Your task to perform on an android device: turn pop-ups on in chrome Image 0: 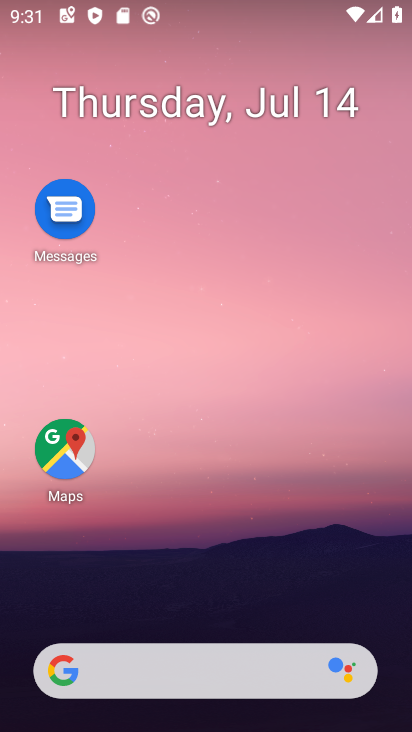
Step 0: drag from (198, 613) to (203, 70)
Your task to perform on an android device: turn pop-ups on in chrome Image 1: 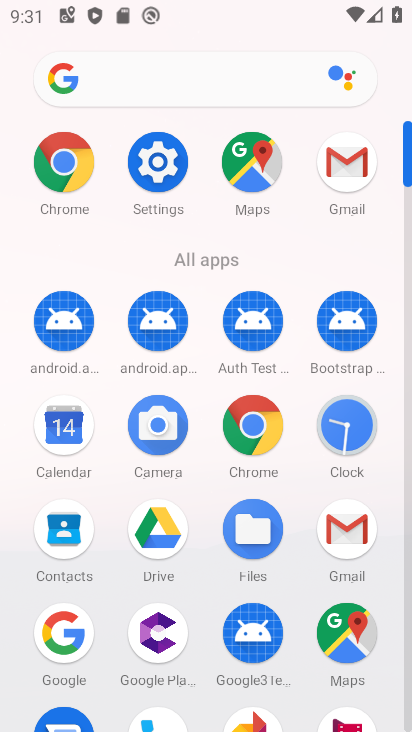
Step 1: click (64, 162)
Your task to perform on an android device: turn pop-ups on in chrome Image 2: 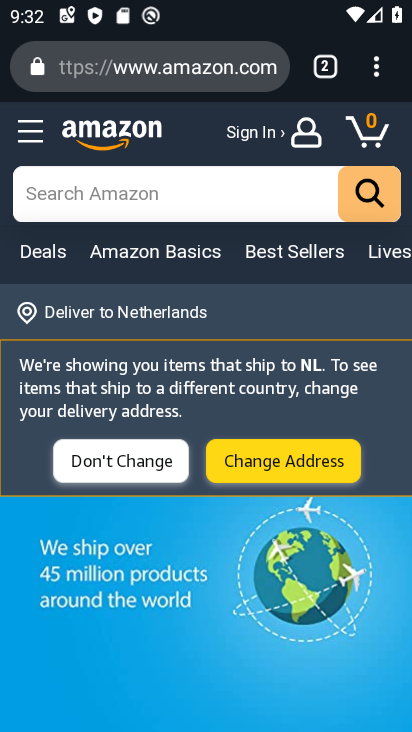
Step 2: click (370, 74)
Your task to perform on an android device: turn pop-ups on in chrome Image 3: 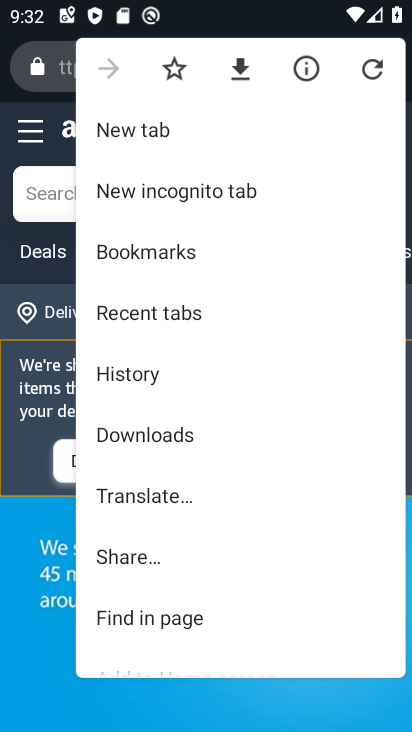
Step 3: drag from (265, 418) to (182, 71)
Your task to perform on an android device: turn pop-ups on in chrome Image 4: 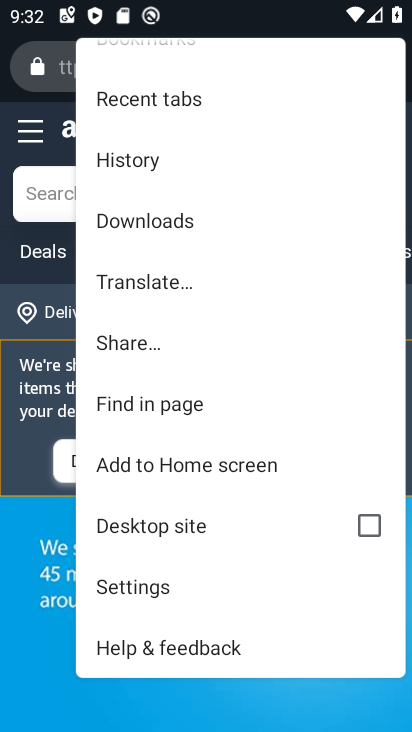
Step 4: click (131, 590)
Your task to perform on an android device: turn pop-ups on in chrome Image 5: 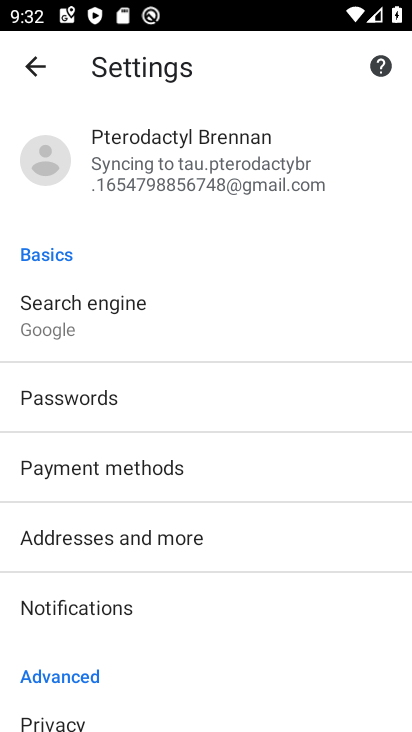
Step 5: drag from (131, 590) to (103, 95)
Your task to perform on an android device: turn pop-ups on in chrome Image 6: 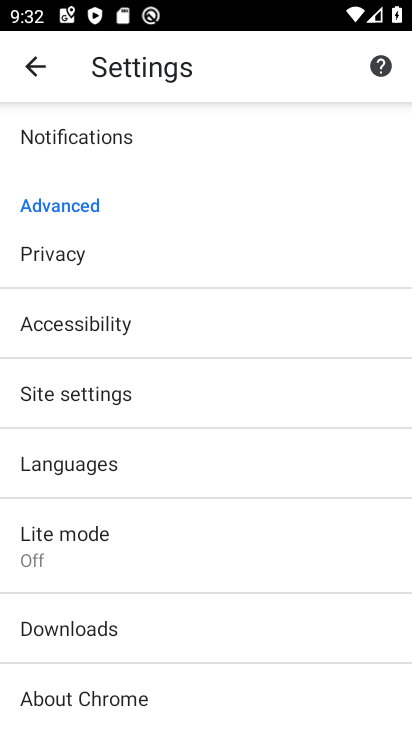
Step 6: click (48, 419)
Your task to perform on an android device: turn pop-ups on in chrome Image 7: 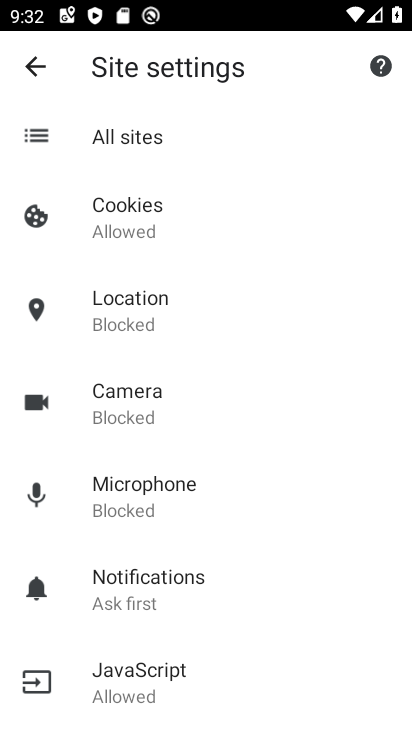
Step 7: drag from (206, 618) to (175, 86)
Your task to perform on an android device: turn pop-ups on in chrome Image 8: 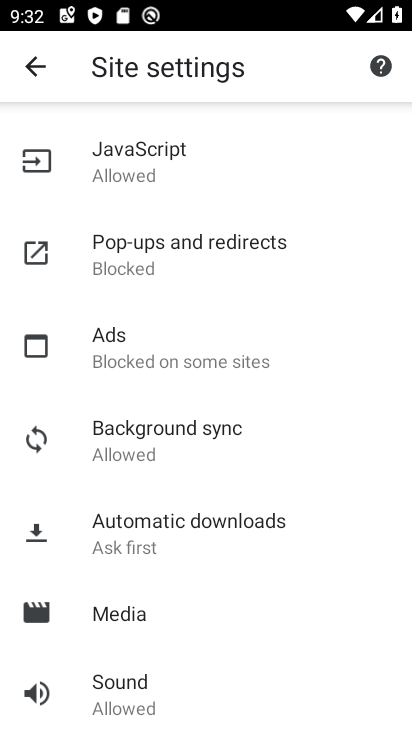
Step 8: click (128, 243)
Your task to perform on an android device: turn pop-ups on in chrome Image 9: 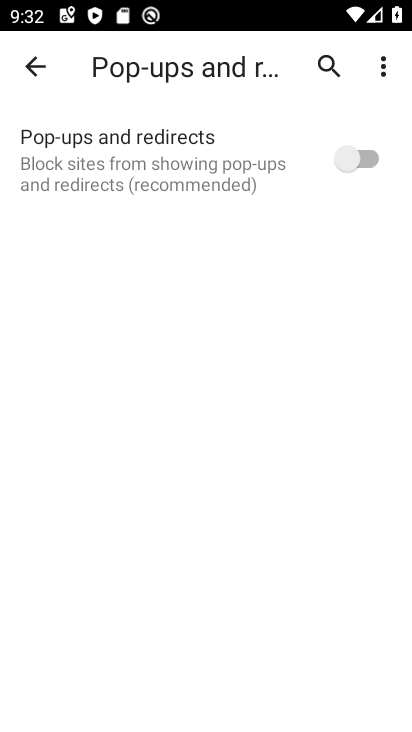
Step 9: click (351, 165)
Your task to perform on an android device: turn pop-ups on in chrome Image 10: 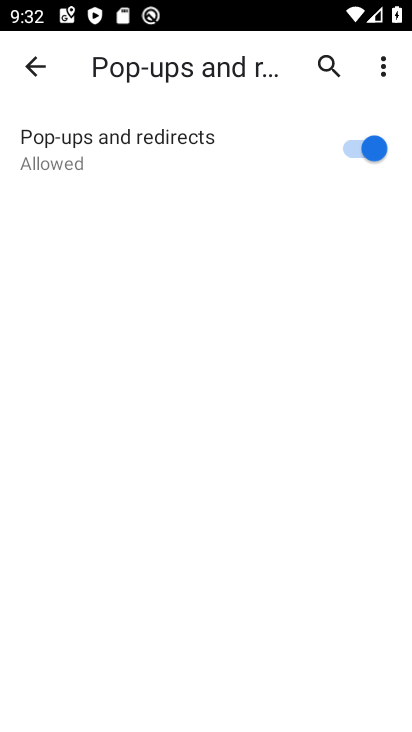
Step 10: task complete